Your task to perform on an android device: toggle airplane mode Image 0: 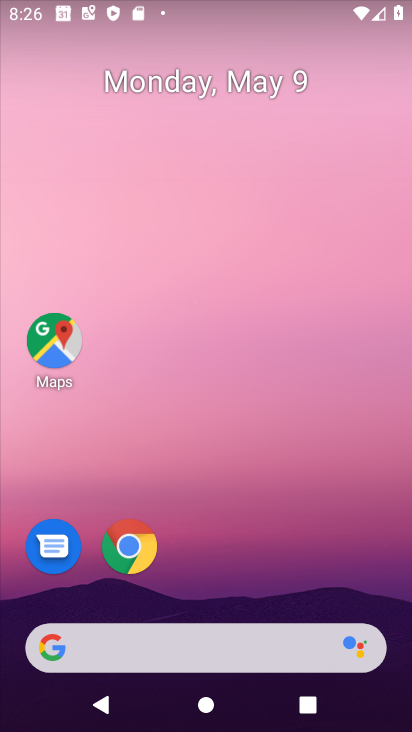
Step 0: drag from (266, 711) to (176, 120)
Your task to perform on an android device: toggle airplane mode Image 1: 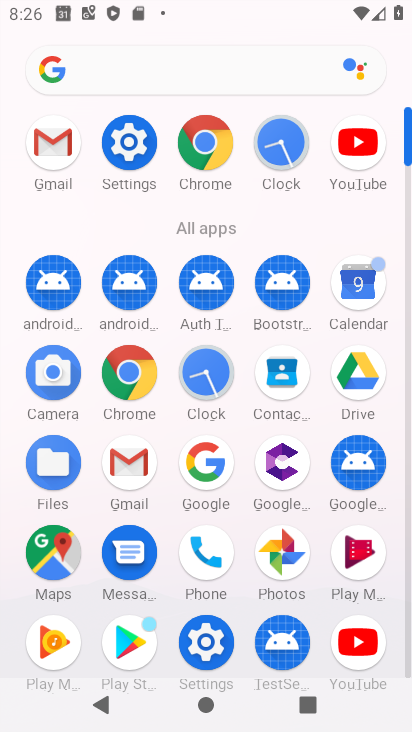
Step 1: click (120, 153)
Your task to perform on an android device: toggle airplane mode Image 2: 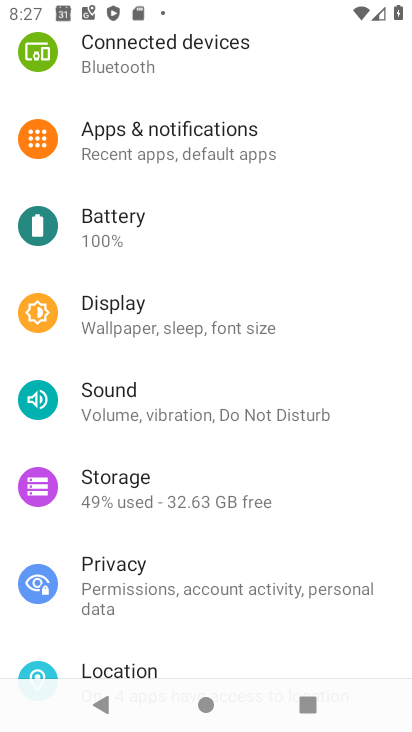
Step 2: drag from (317, 108) to (376, 603)
Your task to perform on an android device: toggle airplane mode Image 3: 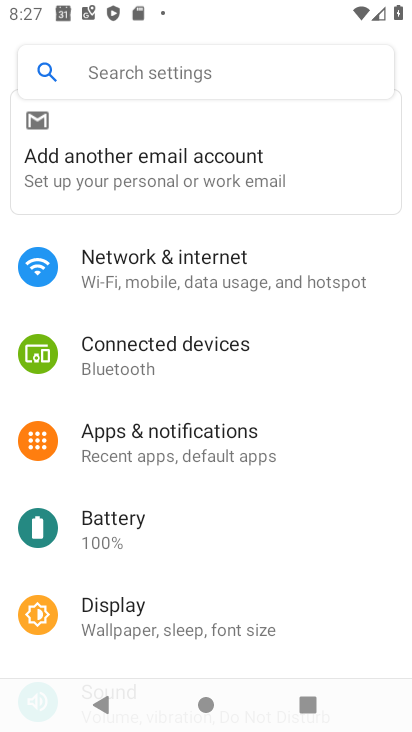
Step 3: click (281, 290)
Your task to perform on an android device: toggle airplane mode Image 4: 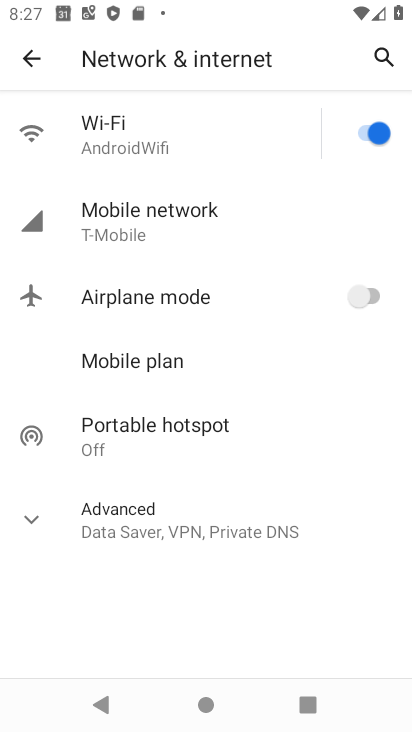
Step 4: click (355, 289)
Your task to perform on an android device: toggle airplane mode Image 5: 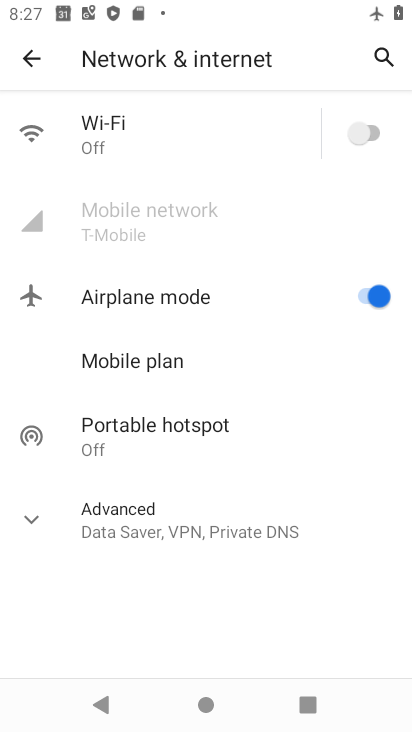
Step 5: task complete